Your task to perform on an android device: What's the weather? Image 0: 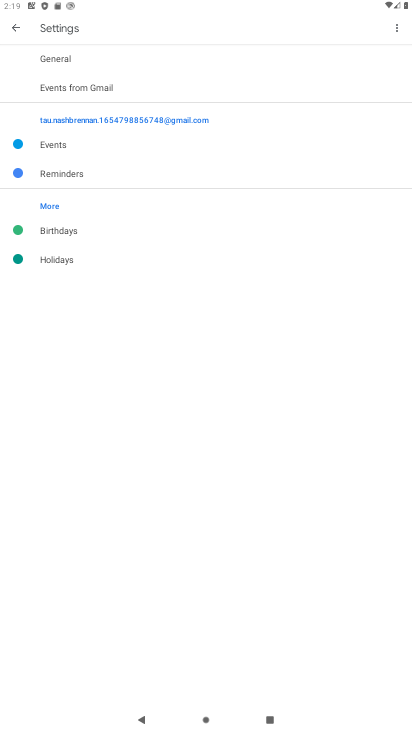
Step 0: press home button
Your task to perform on an android device: What's the weather? Image 1: 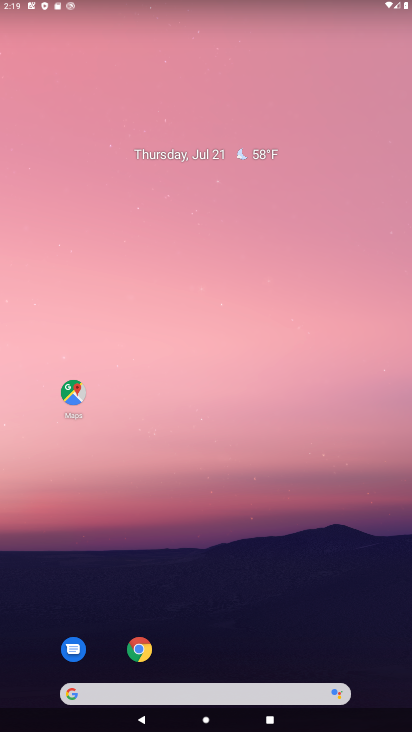
Step 1: drag from (257, 650) to (248, 18)
Your task to perform on an android device: What's the weather? Image 2: 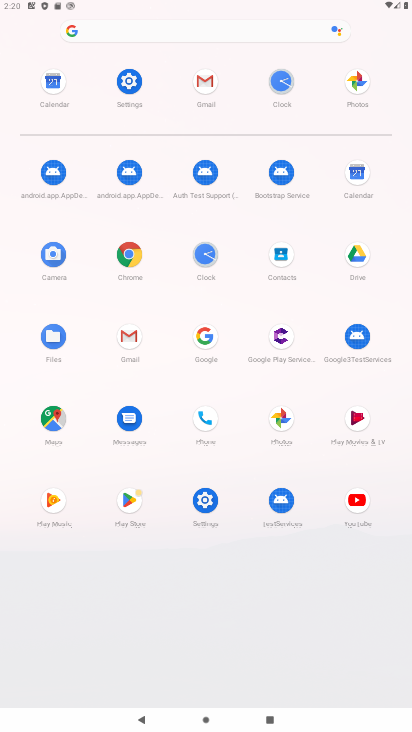
Step 2: click (201, 36)
Your task to perform on an android device: What's the weather? Image 3: 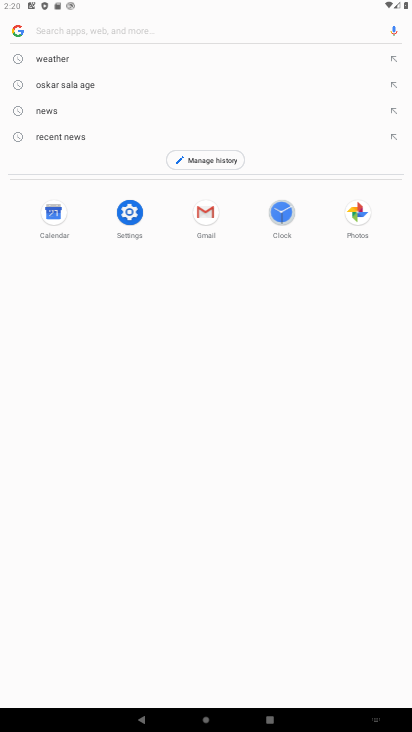
Step 3: click (116, 65)
Your task to perform on an android device: What's the weather? Image 4: 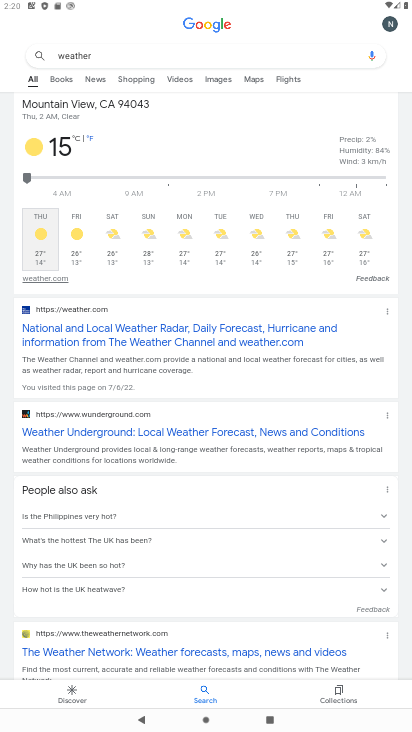
Step 4: task complete